Your task to perform on an android device: Open calendar and show me the fourth week of next month Image 0: 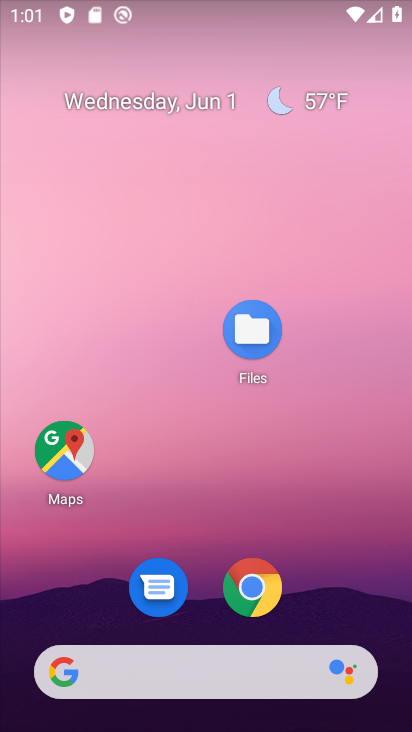
Step 0: press home button
Your task to perform on an android device: Open calendar and show me the fourth week of next month Image 1: 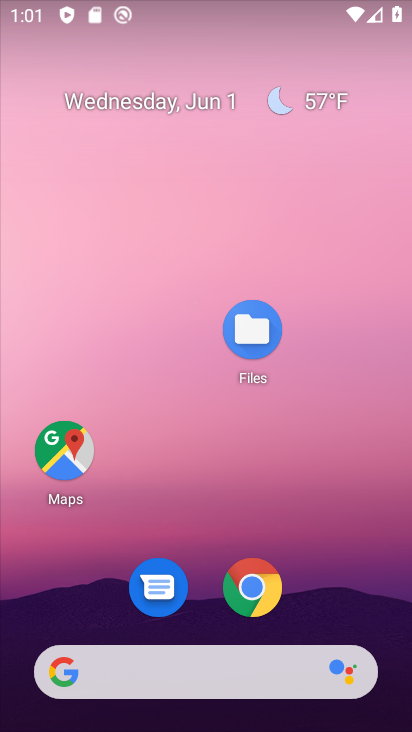
Step 1: drag from (334, 607) to (290, 76)
Your task to perform on an android device: Open calendar and show me the fourth week of next month Image 2: 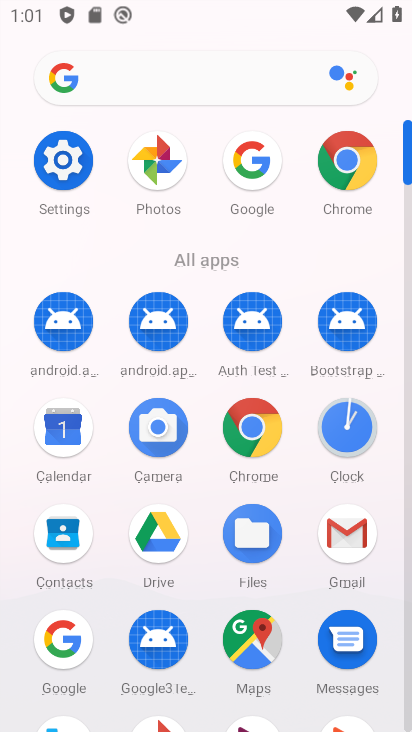
Step 2: click (70, 416)
Your task to perform on an android device: Open calendar and show me the fourth week of next month Image 3: 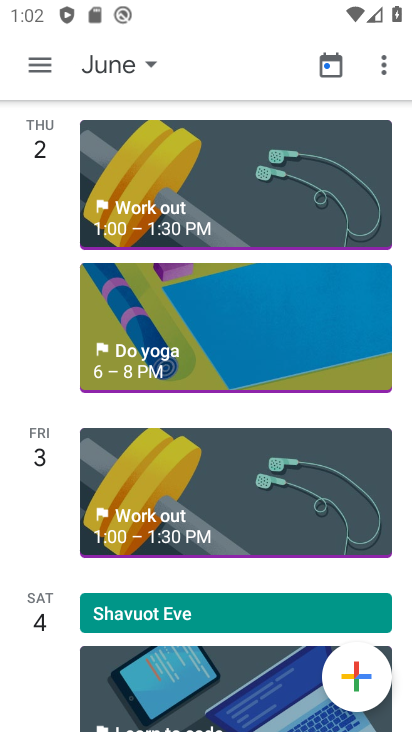
Step 3: click (148, 73)
Your task to perform on an android device: Open calendar and show me the fourth week of next month Image 4: 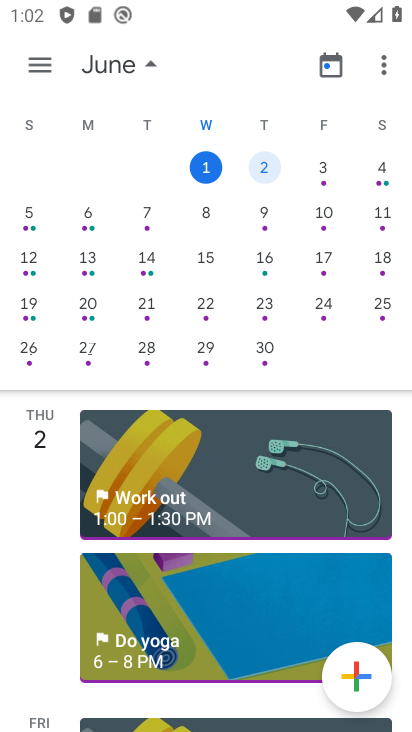
Step 4: drag from (396, 230) to (24, 290)
Your task to perform on an android device: Open calendar and show me the fourth week of next month Image 5: 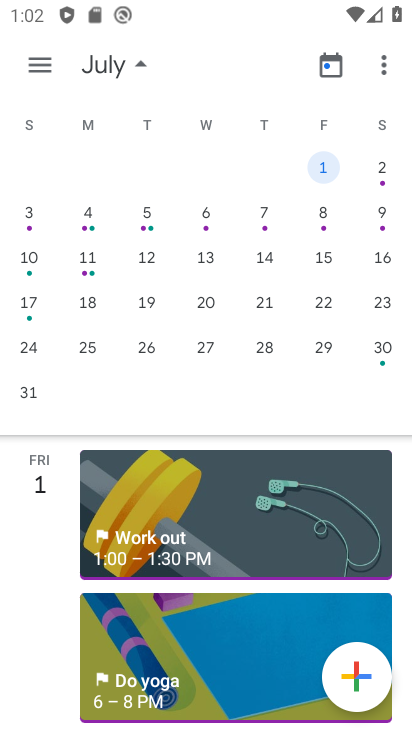
Step 5: click (321, 303)
Your task to perform on an android device: Open calendar and show me the fourth week of next month Image 6: 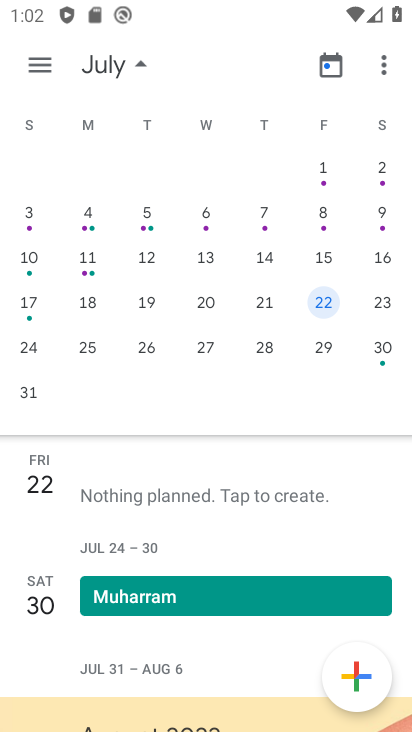
Step 6: task complete